Your task to perform on an android device: set the stopwatch Image 0: 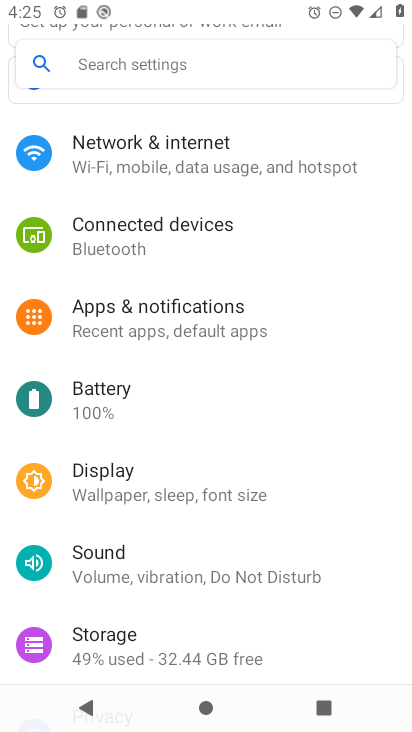
Step 0: press home button
Your task to perform on an android device: set the stopwatch Image 1: 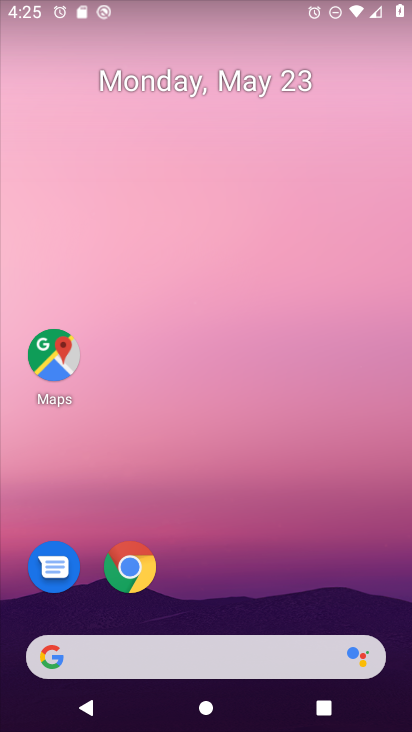
Step 1: drag from (361, 592) to (343, 78)
Your task to perform on an android device: set the stopwatch Image 2: 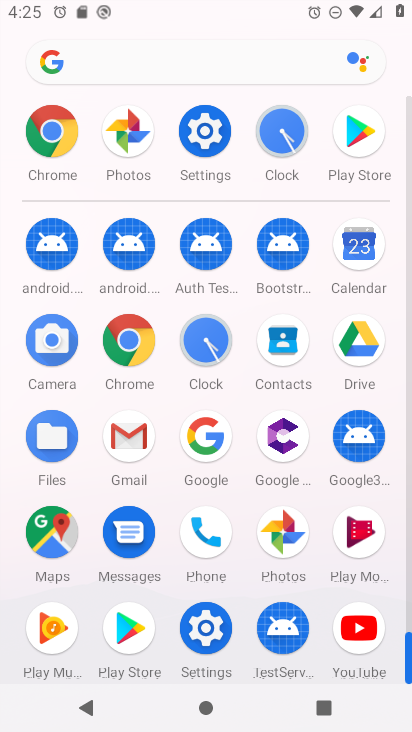
Step 2: click (201, 335)
Your task to perform on an android device: set the stopwatch Image 3: 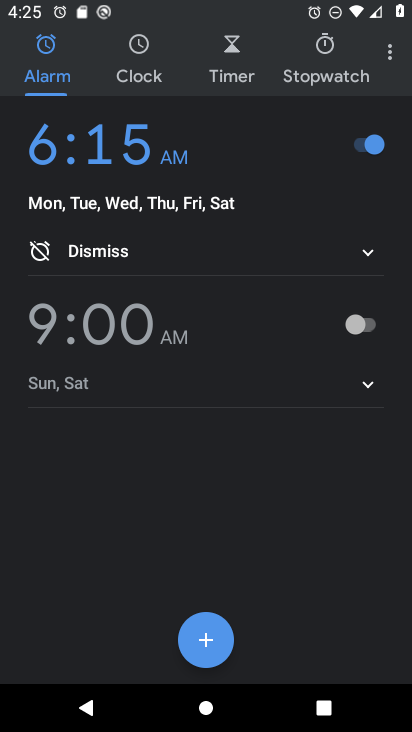
Step 3: click (322, 46)
Your task to perform on an android device: set the stopwatch Image 4: 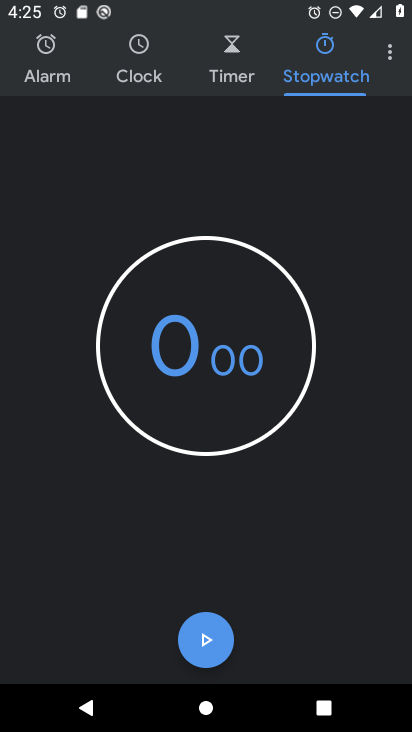
Step 4: task complete